Your task to perform on an android device: Open network settings Image 0: 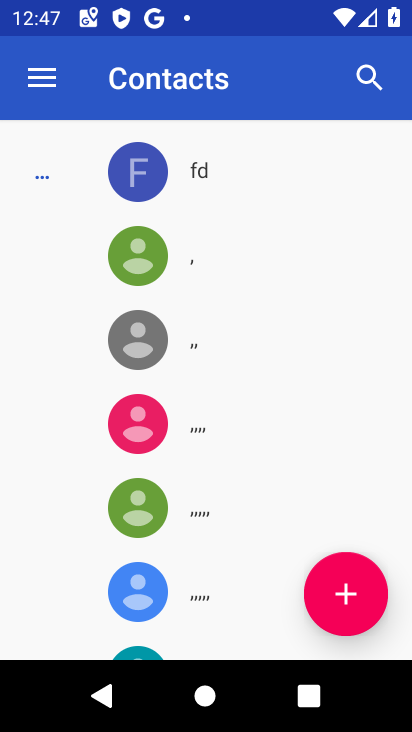
Step 0: press home button
Your task to perform on an android device: Open network settings Image 1: 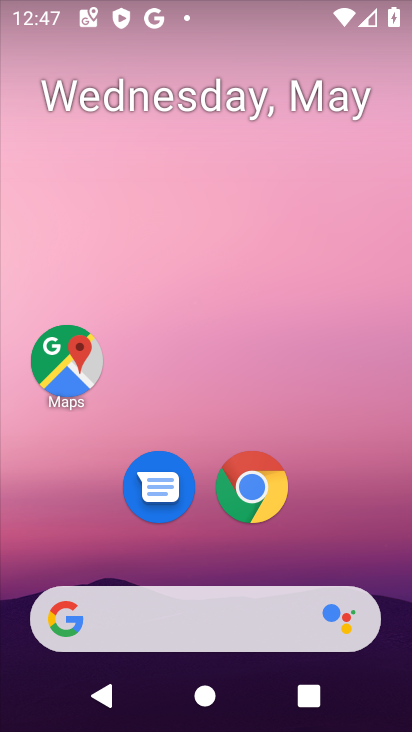
Step 1: drag from (205, 537) to (297, 41)
Your task to perform on an android device: Open network settings Image 2: 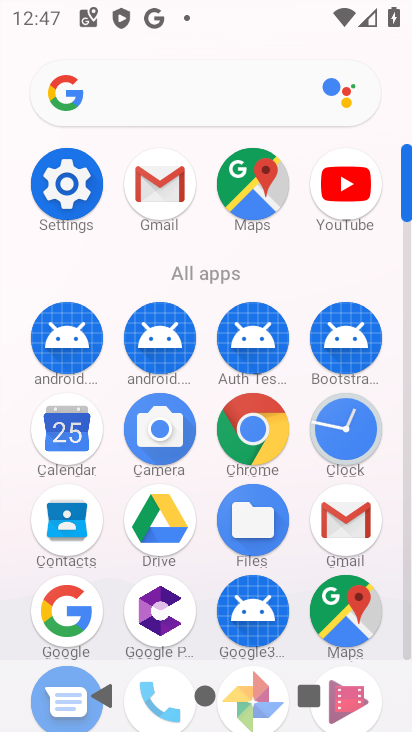
Step 2: click (60, 182)
Your task to perform on an android device: Open network settings Image 3: 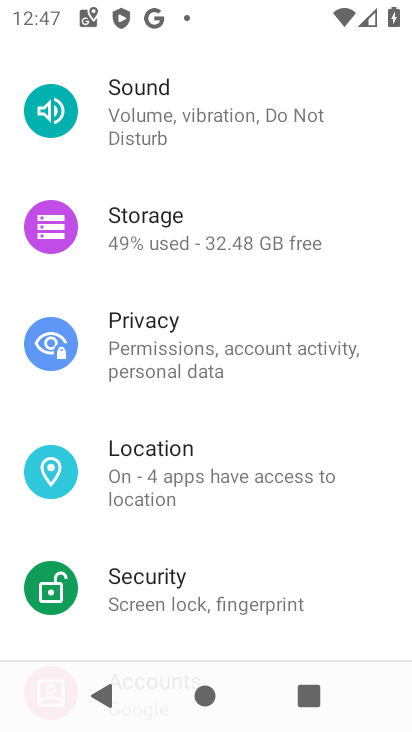
Step 3: drag from (161, 191) to (165, 528)
Your task to perform on an android device: Open network settings Image 4: 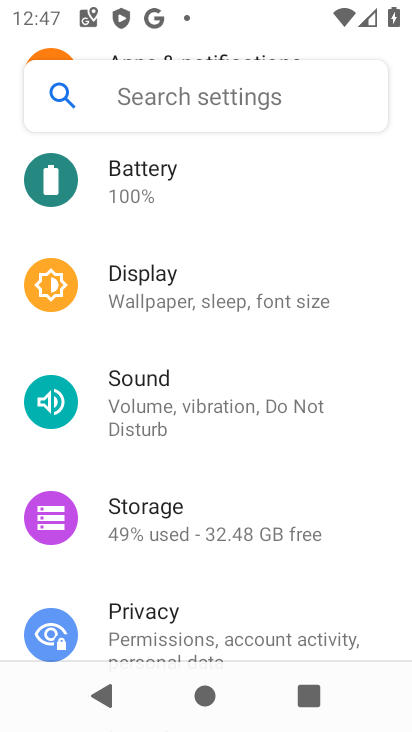
Step 4: drag from (242, 285) to (220, 728)
Your task to perform on an android device: Open network settings Image 5: 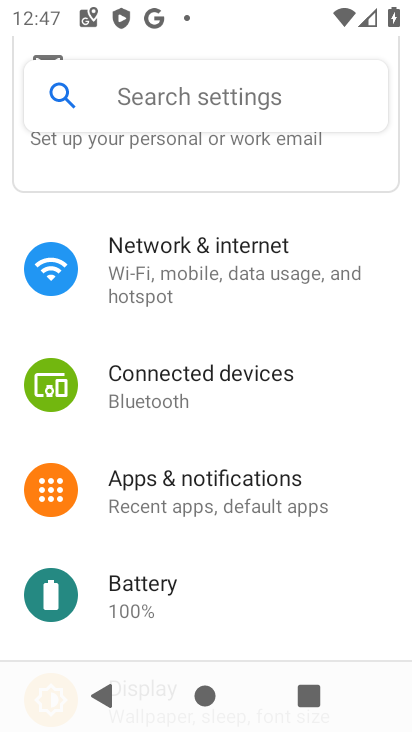
Step 5: click (166, 285)
Your task to perform on an android device: Open network settings Image 6: 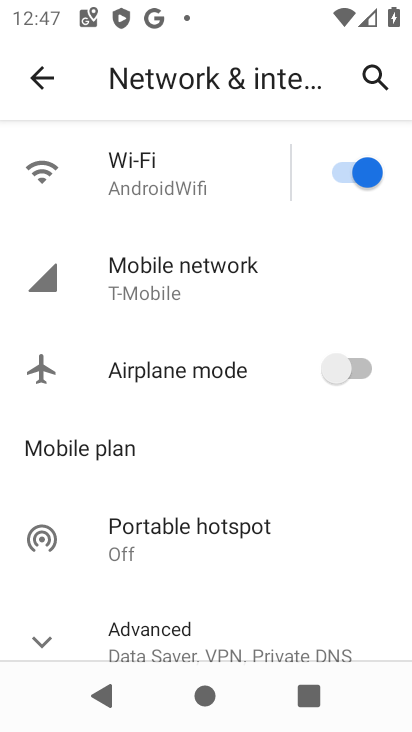
Step 6: task complete